Your task to perform on an android device: turn on improve location accuracy Image 0: 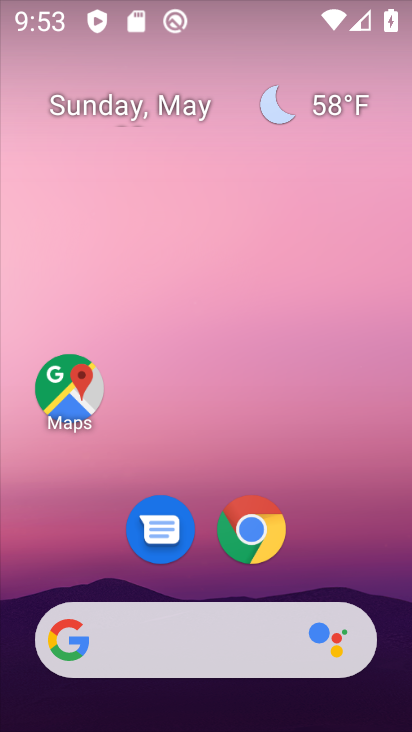
Step 0: drag from (221, 576) to (243, 18)
Your task to perform on an android device: turn on improve location accuracy Image 1: 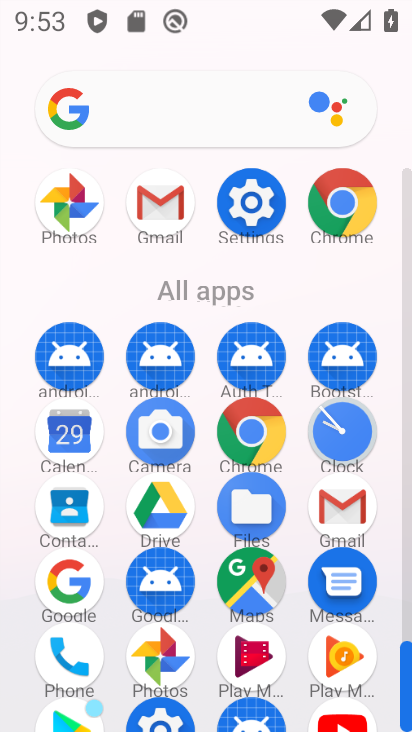
Step 1: click (251, 206)
Your task to perform on an android device: turn on improve location accuracy Image 2: 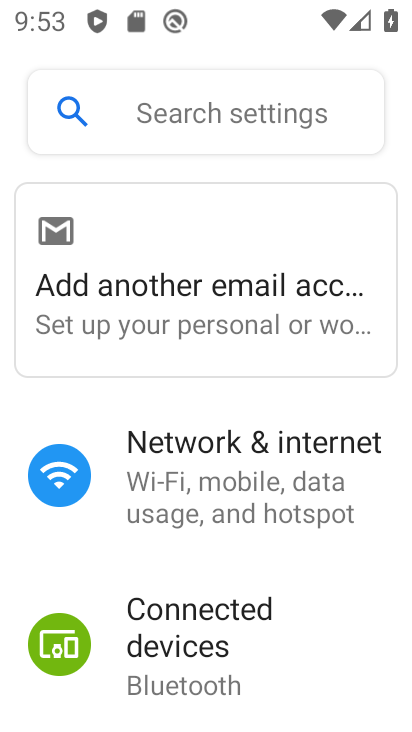
Step 2: drag from (216, 589) to (286, 101)
Your task to perform on an android device: turn on improve location accuracy Image 3: 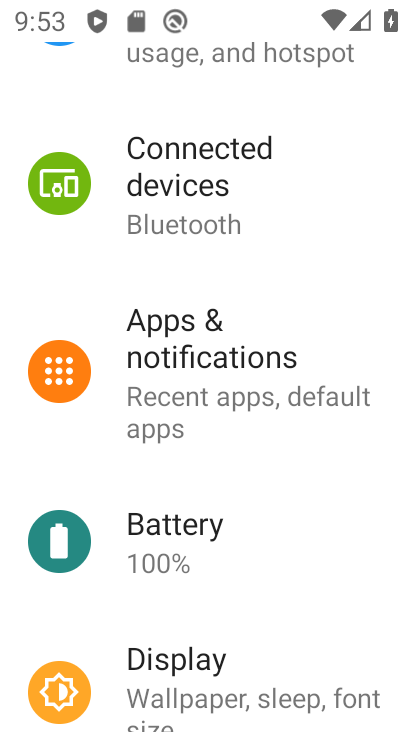
Step 3: drag from (255, 574) to (292, 160)
Your task to perform on an android device: turn on improve location accuracy Image 4: 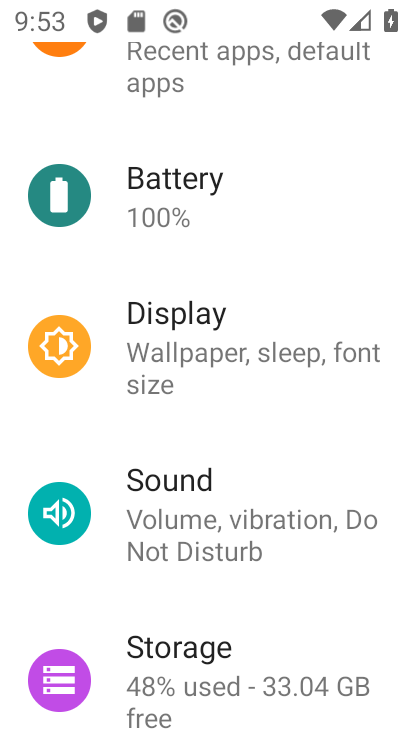
Step 4: drag from (229, 614) to (249, 233)
Your task to perform on an android device: turn on improve location accuracy Image 5: 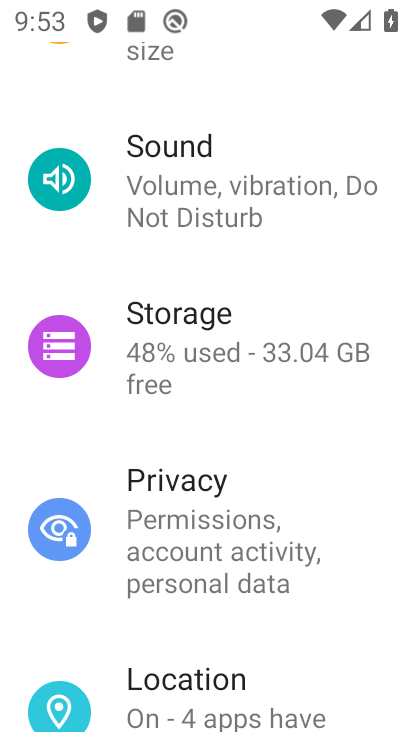
Step 5: click (223, 692)
Your task to perform on an android device: turn on improve location accuracy Image 6: 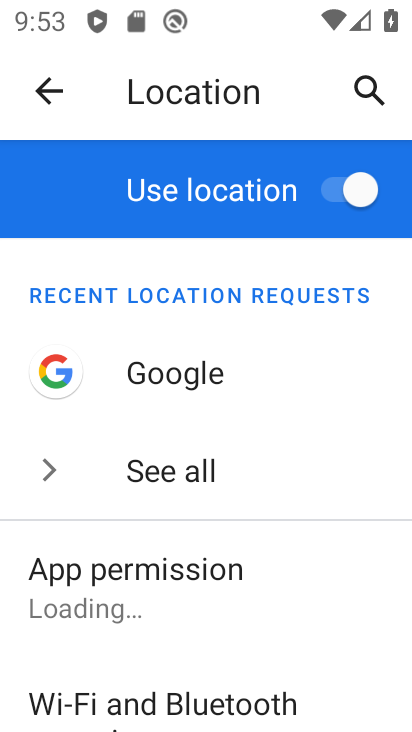
Step 6: drag from (185, 591) to (228, 169)
Your task to perform on an android device: turn on improve location accuracy Image 7: 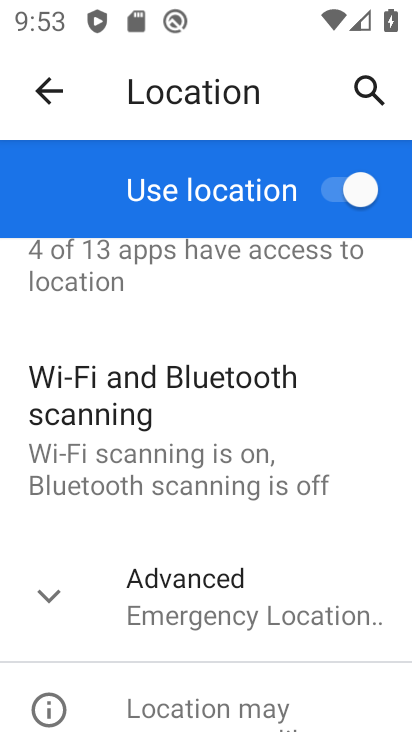
Step 7: drag from (188, 624) to (205, 368)
Your task to perform on an android device: turn on improve location accuracy Image 8: 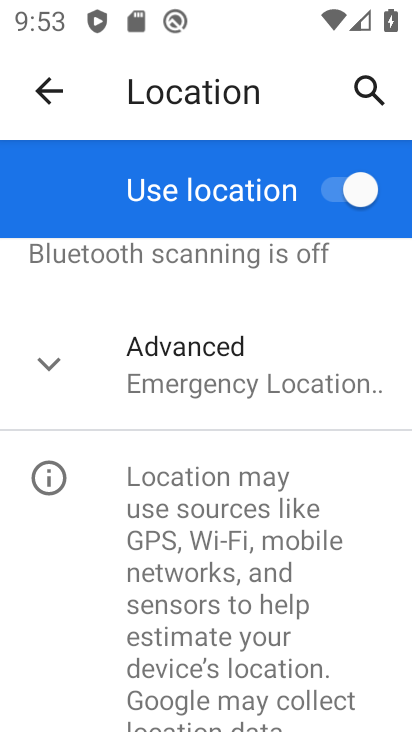
Step 8: click (189, 369)
Your task to perform on an android device: turn on improve location accuracy Image 9: 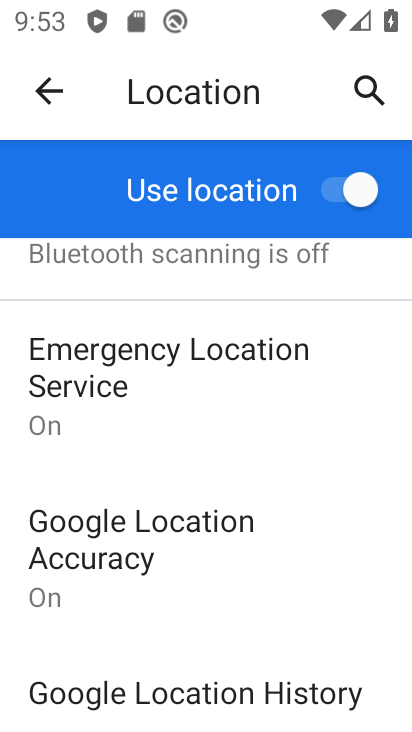
Step 9: click (169, 559)
Your task to perform on an android device: turn on improve location accuracy Image 10: 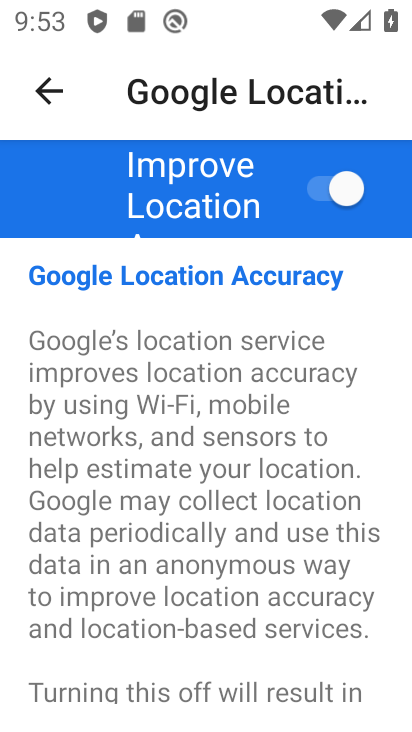
Step 10: task complete